Your task to perform on an android device: change the upload size in google photos Image 0: 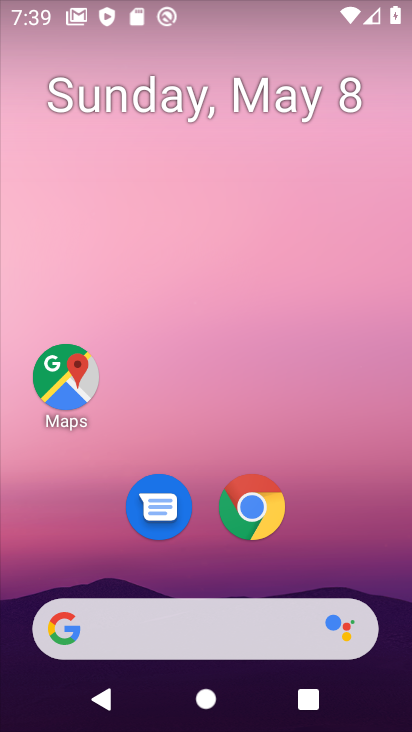
Step 0: drag from (246, 584) to (221, 6)
Your task to perform on an android device: change the upload size in google photos Image 1: 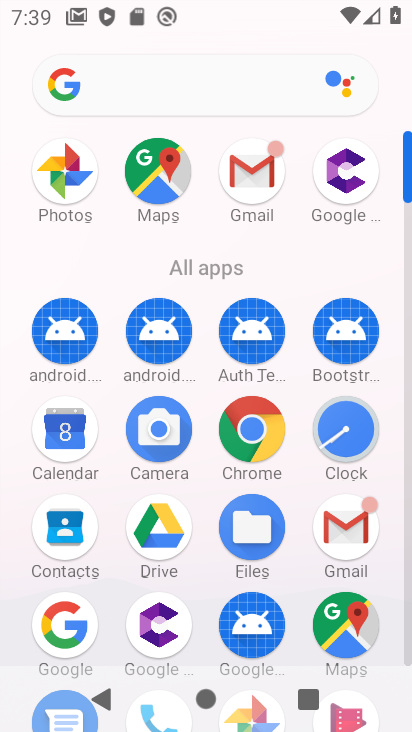
Step 1: drag from (244, 560) to (40, 55)
Your task to perform on an android device: change the upload size in google photos Image 2: 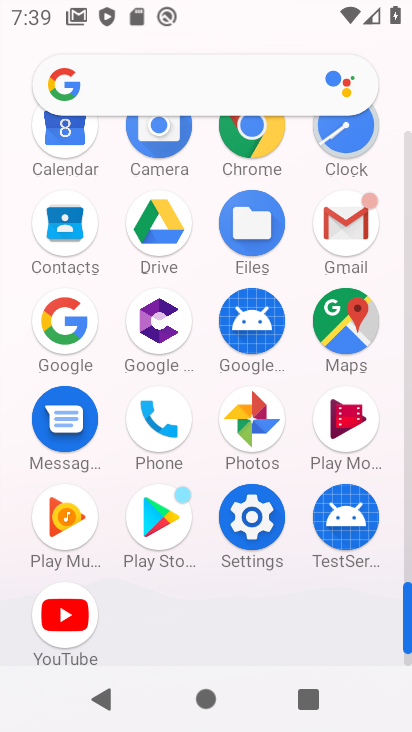
Step 2: click (260, 438)
Your task to perform on an android device: change the upload size in google photos Image 3: 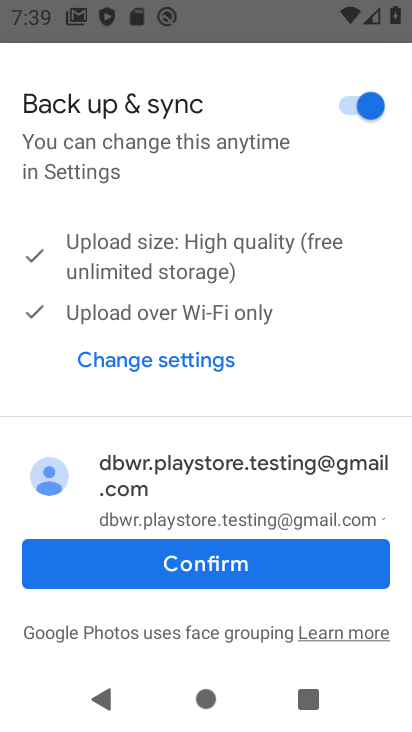
Step 3: click (151, 565)
Your task to perform on an android device: change the upload size in google photos Image 4: 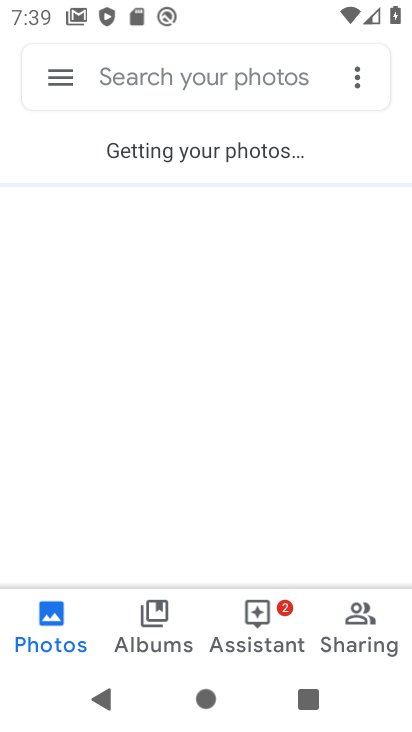
Step 4: click (57, 80)
Your task to perform on an android device: change the upload size in google photos Image 5: 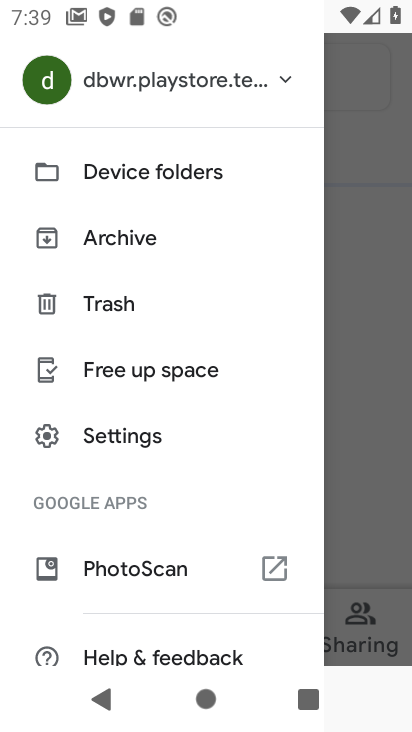
Step 5: drag from (158, 635) to (160, 7)
Your task to perform on an android device: change the upload size in google photos Image 6: 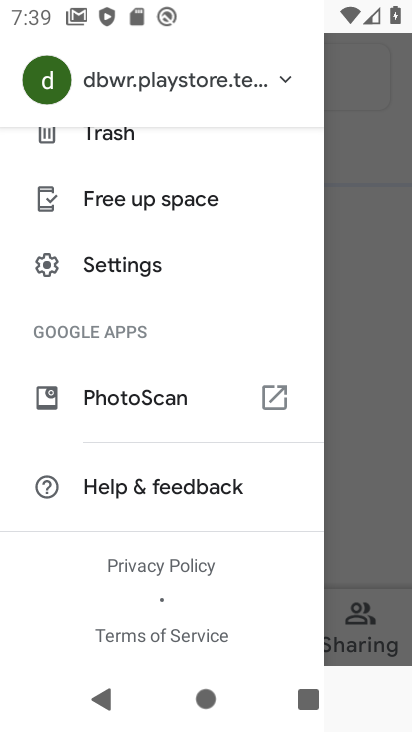
Step 6: click (137, 270)
Your task to perform on an android device: change the upload size in google photos Image 7: 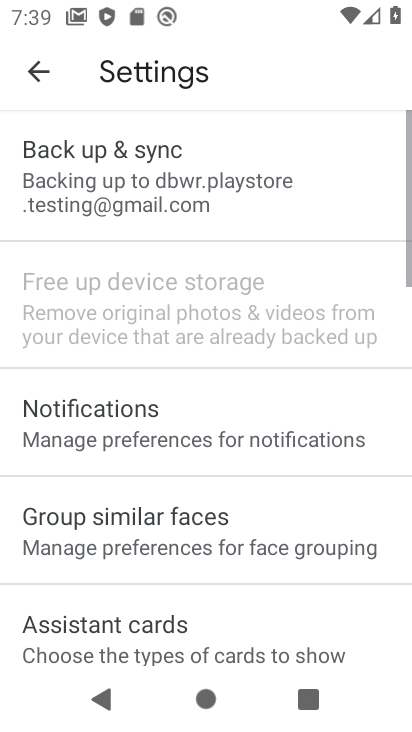
Step 7: click (221, 177)
Your task to perform on an android device: change the upload size in google photos Image 8: 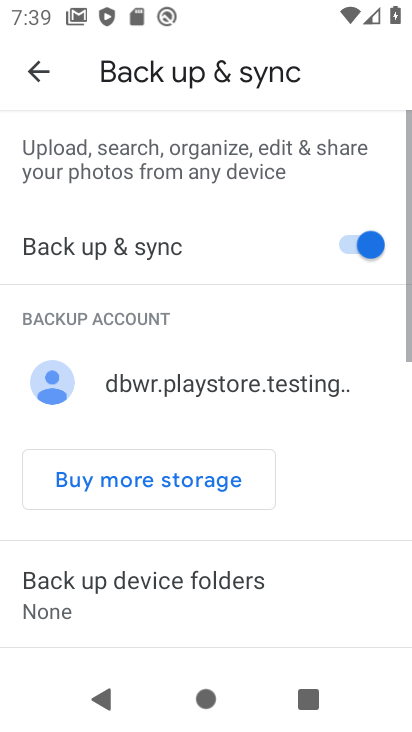
Step 8: drag from (279, 578) to (279, 0)
Your task to perform on an android device: change the upload size in google photos Image 9: 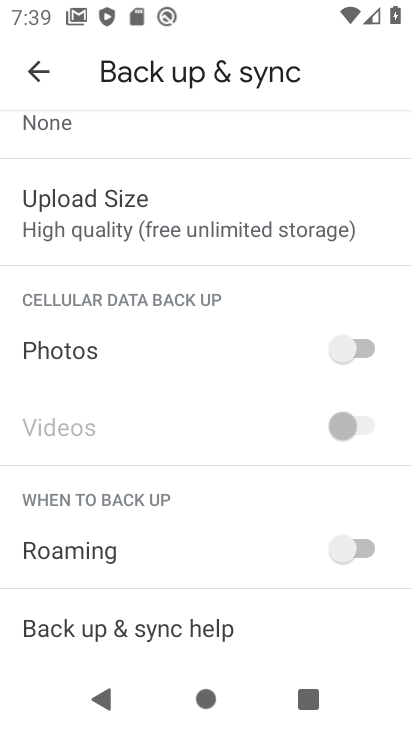
Step 9: click (216, 236)
Your task to perform on an android device: change the upload size in google photos Image 10: 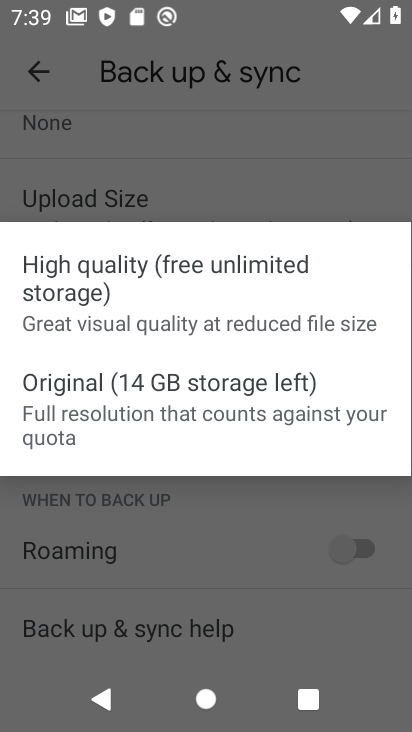
Step 10: click (167, 394)
Your task to perform on an android device: change the upload size in google photos Image 11: 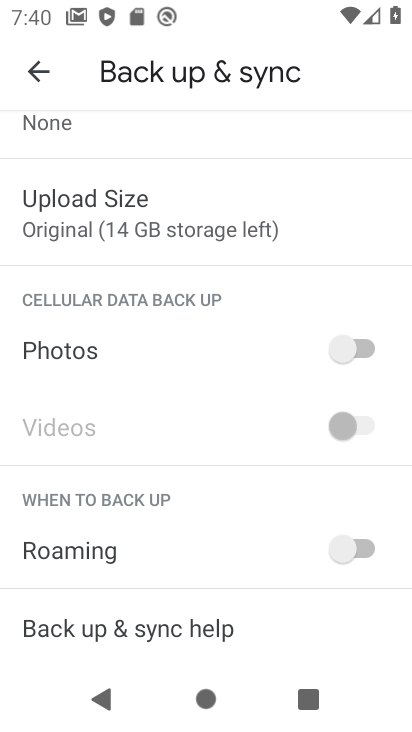
Step 11: task complete